Your task to perform on an android device: change timer sound Image 0: 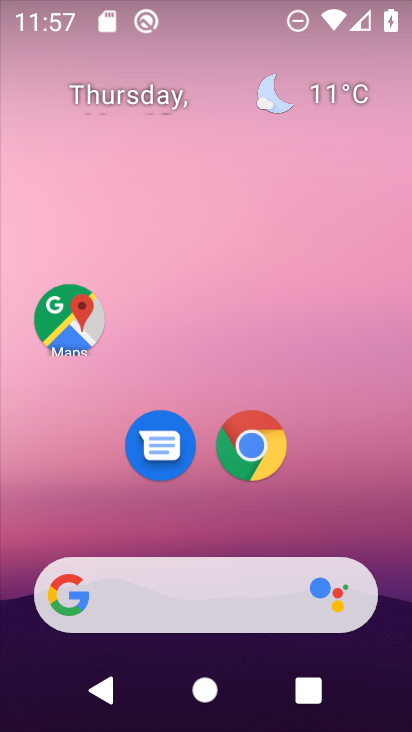
Step 0: drag from (202, 565) to (182, 30)
Your task to perform on an android device: change timer sound Image 1: 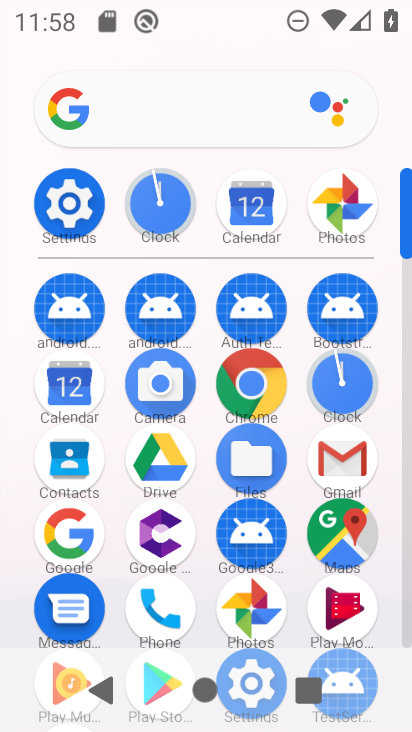
Step 1: click (328, 380)
Your task to perform on an android device: change timer sound Image 2: 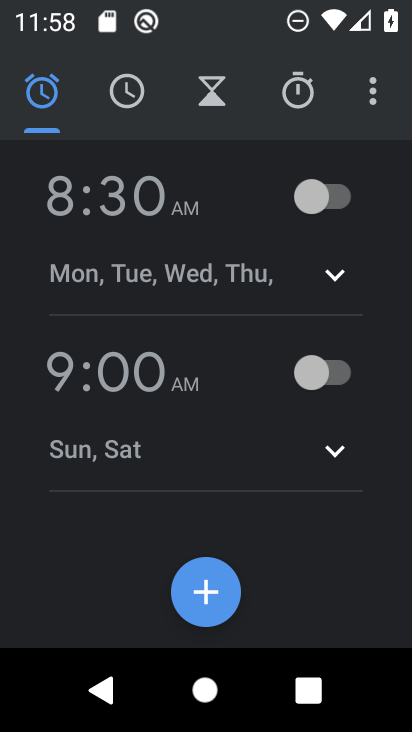
Step 2: click (361, 96)
Your task to perform on an android device: change timer sound Image 3: 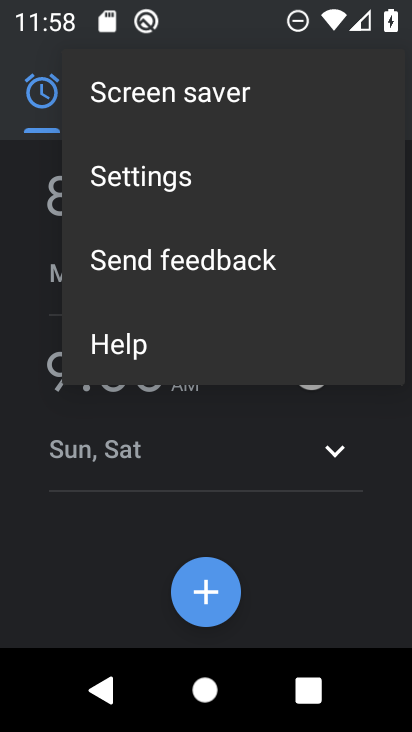
Step 3: click (155, 173)
Your task to perform on an android device: change timer sound Image 4: 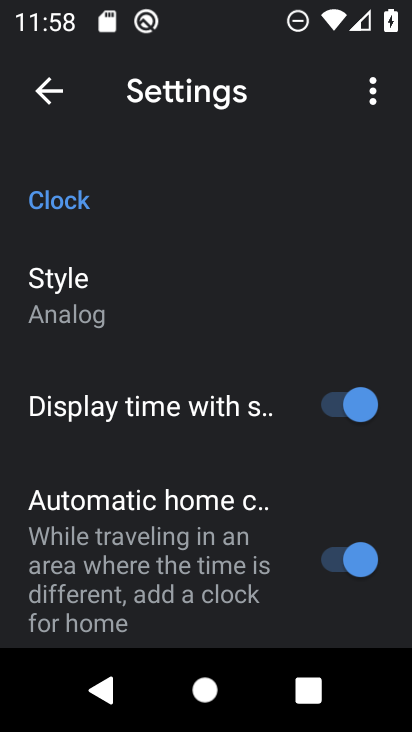
Step 4: drag from (154, 573) to (128, 264)
Your task to perform on an android device: change timer sound Image 5: 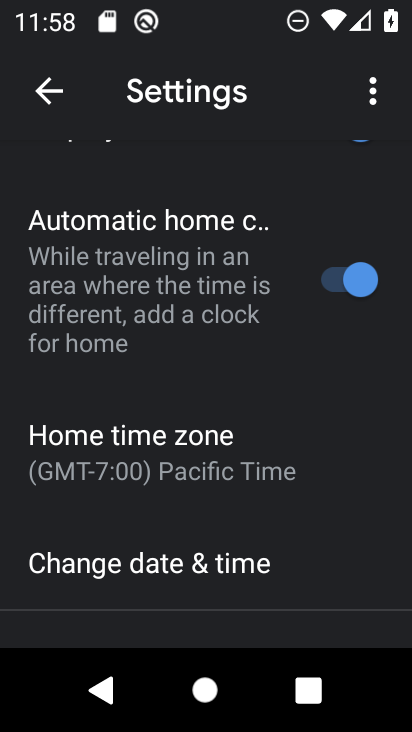
Step 5: drag from (150, 527) to (107, 38)
Your task to perform on an android device: change timer sound Image 6: 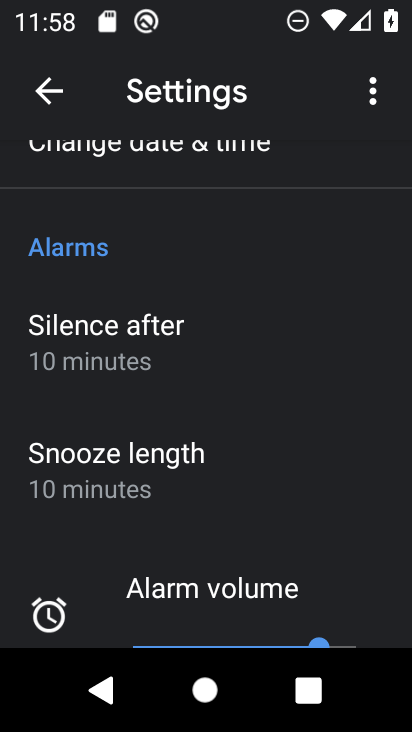
Step 6: drag from (124, 531) to (107, 63)
Your task to perform on an android device: change timer sound Image 7: 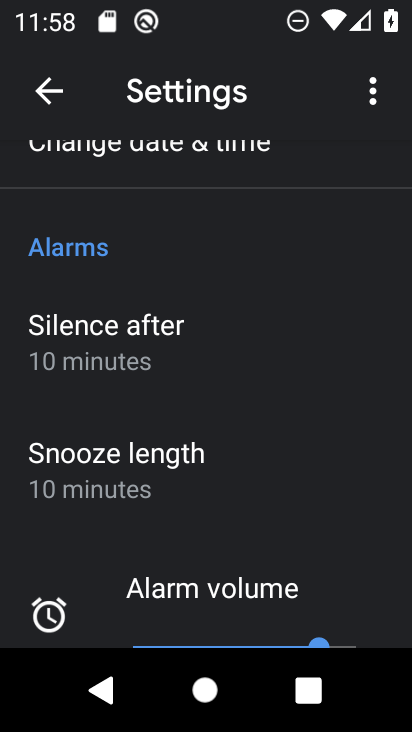
Step 7: drag from (274, 399) to (252, 55)
Your task to perform on an android device: change timer sound Image 8: 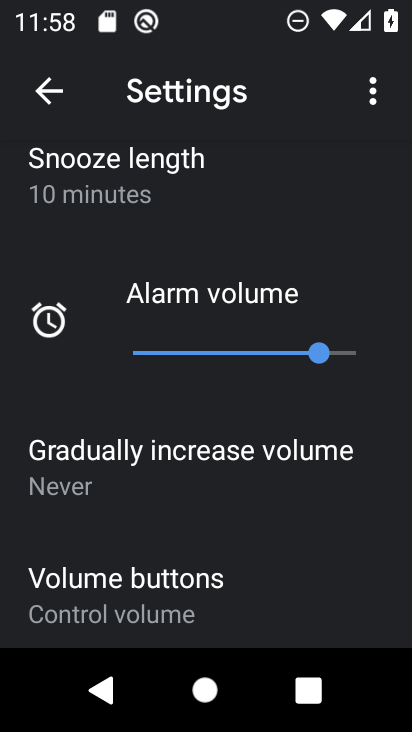
Step 8: drag from (157, 593) to (119, 163)
Your task to perform on an android device: change timer sound Image 9: 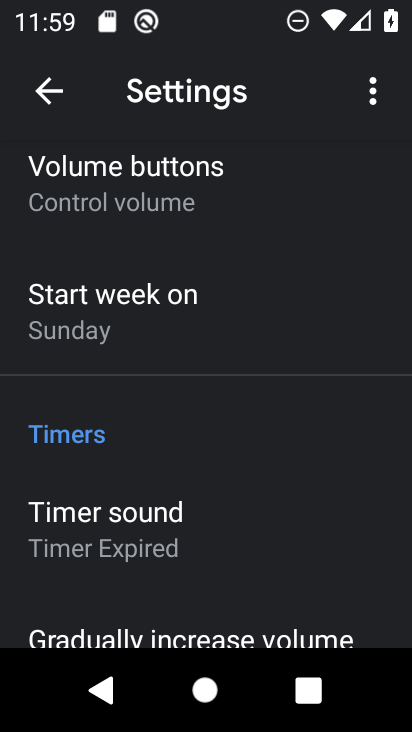
Step 9: click (124, 542)
Your task to perform on an android device: change timer sound Image 10: 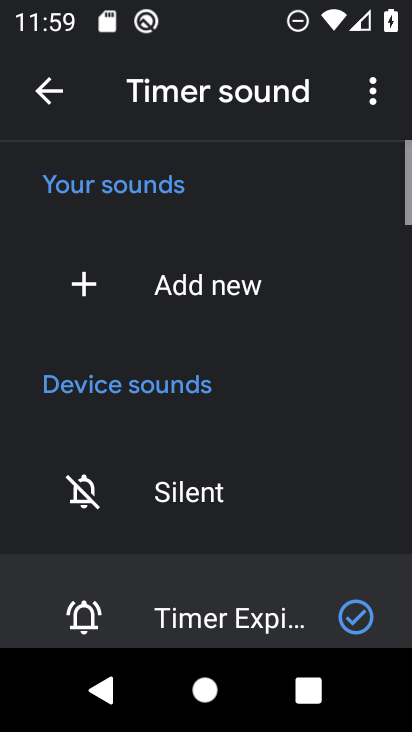
Step 10: drag from (205, 602) to (186, 160)
Your task to perform on an android device: change timer sound Image 11: 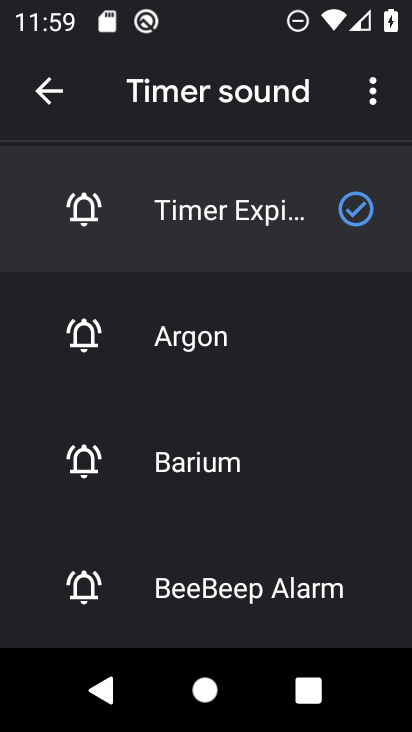
Step 11: click (191, 484)
Your task to perform on an android device: change timer sound Image 12: 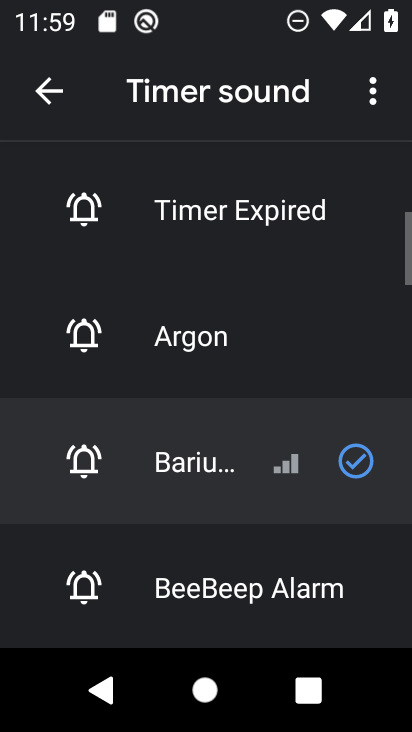
Step 12: task complete